Your task to perform on an android device: turn on translation in the chrome app Image 0: 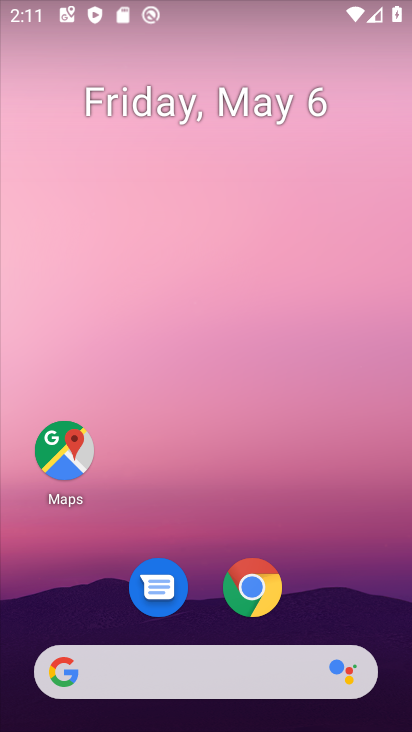
Step 0: drag from (331, 550) to (342, 73)
Your task to perform on an android device: turn on translation in the chrome app Image 1: 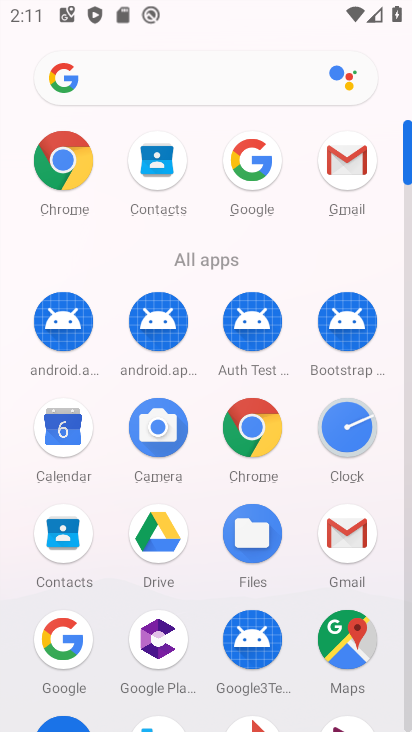
Step 1: click (71, 158)
Your task to perform on an android device: turn on translation in the chrome app Image 2: 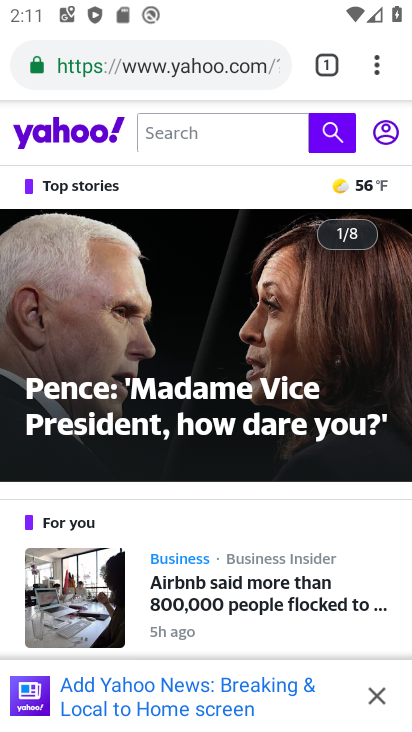
Step 2: drag from (373, 74) to (183, 623)
Your task to perform on an android device: turn on translation in the chrome app Image 3: 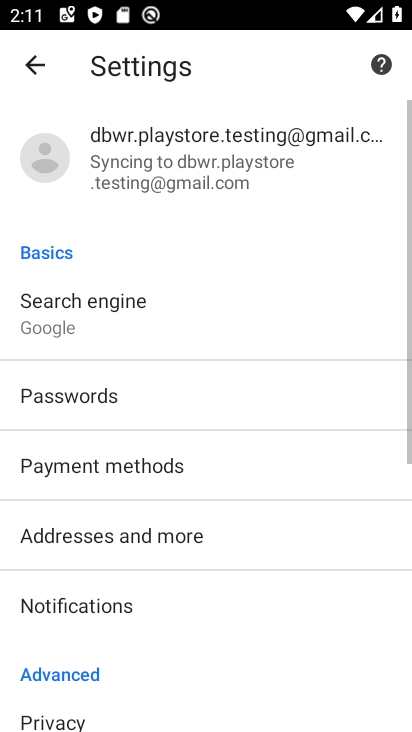
Step 3: drag from (195, 629) to (210, 287)
Your task to perform on an android device: turn on translation in the chrome app Image 4: 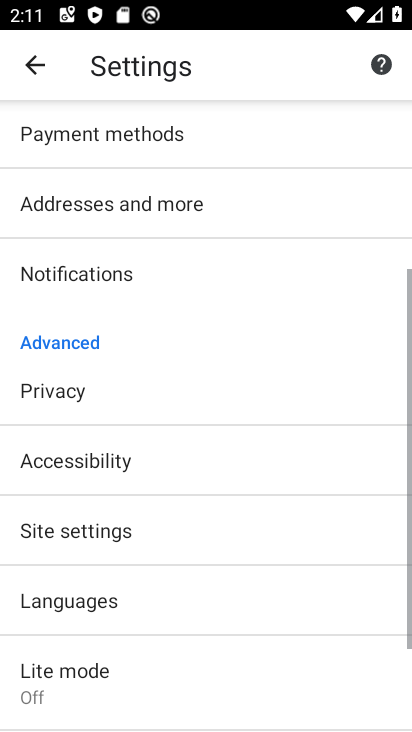
Step 4: click (163, 598)
Your task to perform on an android device: turn on translation in the chrome app Image 5: 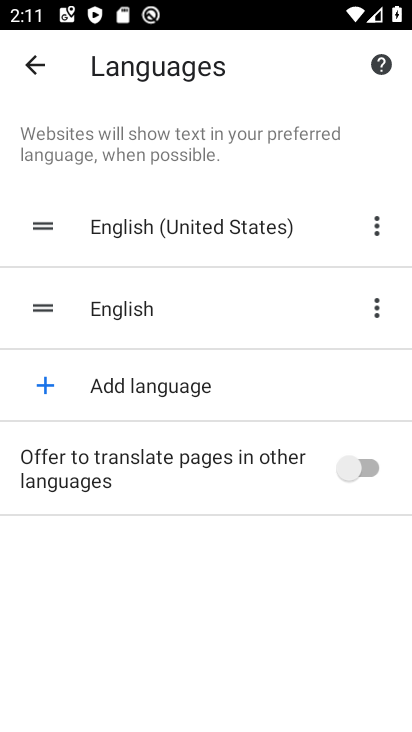
Step 5: click (351, 462)
Your task to perform on an android device: turn on translation in the chrome app Image 6: 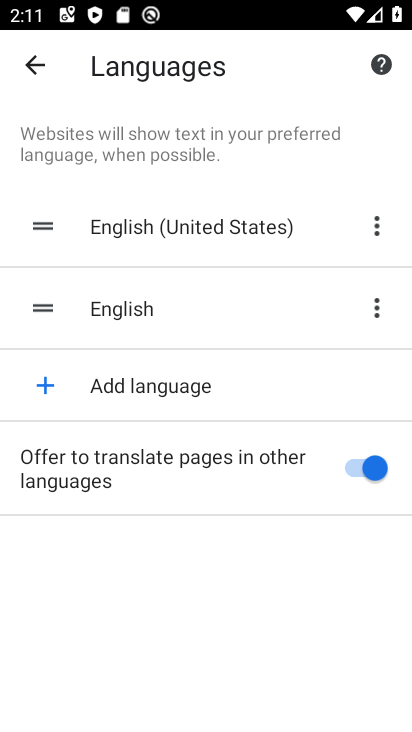
Step 6: task complete